Your task to perform on an android device: toggle translation in the chrome app Image 0: 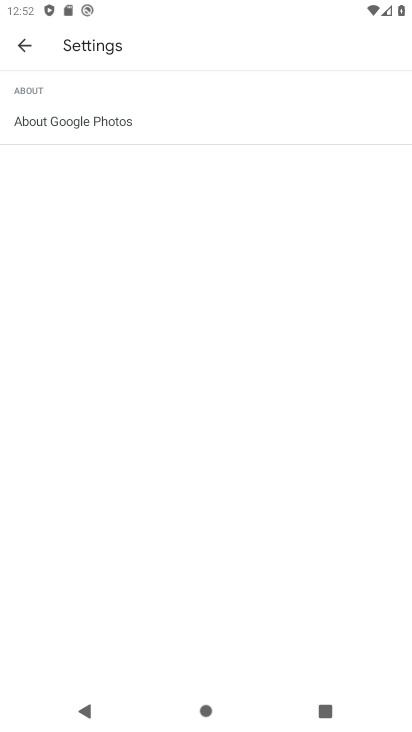
Step 0: press home button
Your task to perform on an android device: toggle translation in the chrome app Image 1: 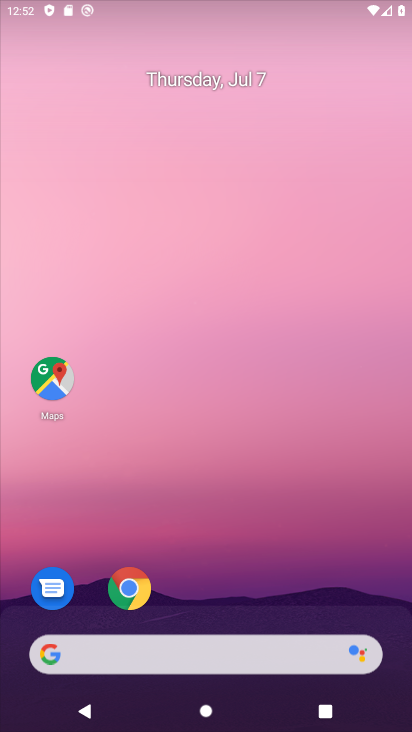
Step 1: drag from (241, 650) to (338, 47)
Your task to perform on an android device: toggle translation in the chrome app Image 2: 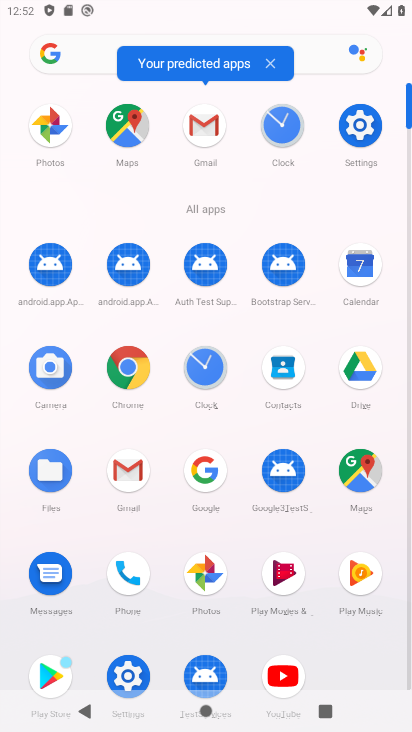
Step 2: click (128, 368)
Your task to perform on an android device: toggle translation in the chrome app Image 3: 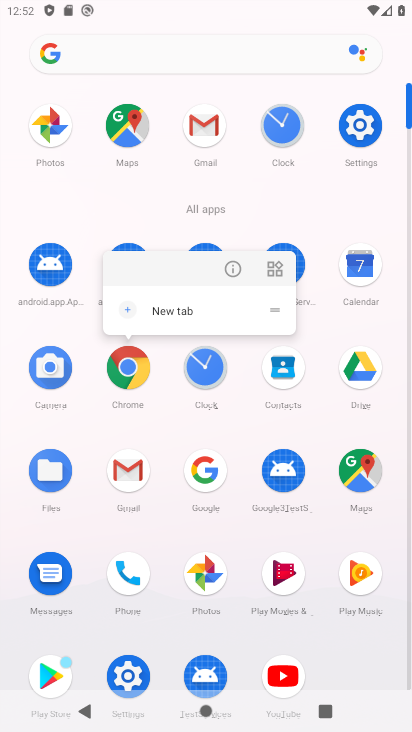
Step 3: click (128, 368)
Your task to perform on an android device: toggle translation in the chrome app Image 4: 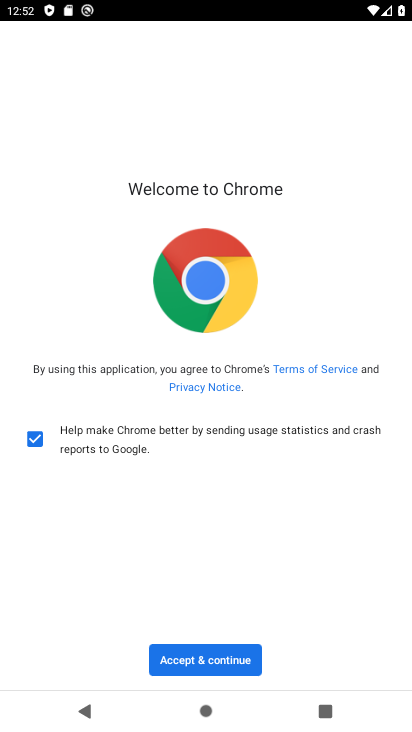
Step 4: click (218, 638)
Your task to perform on an android device: toggle translation in the chrome app Image 5: 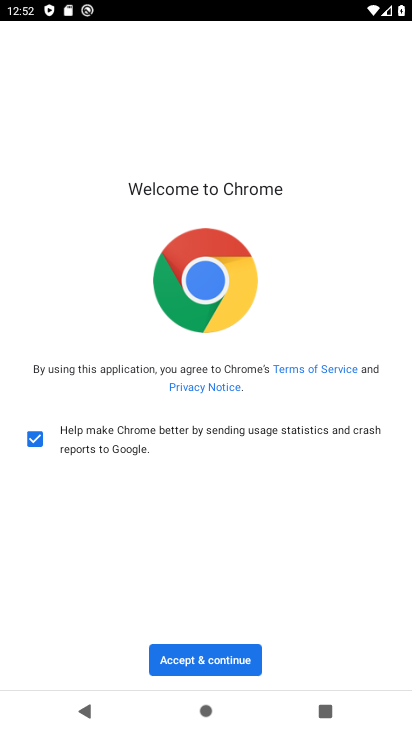
Step 5: click (237, 663)
Your task to perform on an android device: toggle translation in the chrome app Image 6: 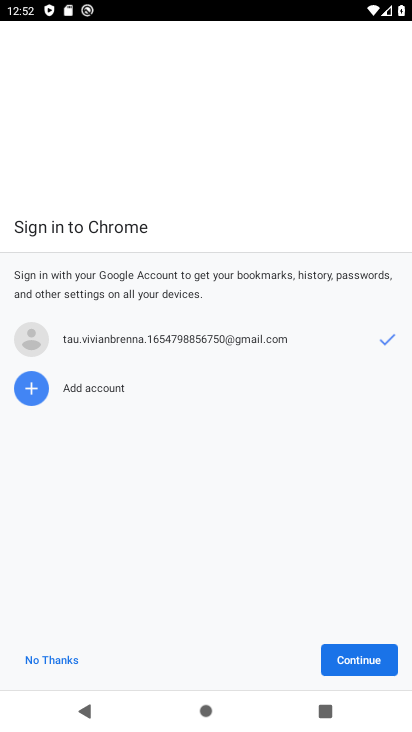
Step 6: click (341, 652)
Your task to perform on an android device: toggle translation in the chrome app Image 7: 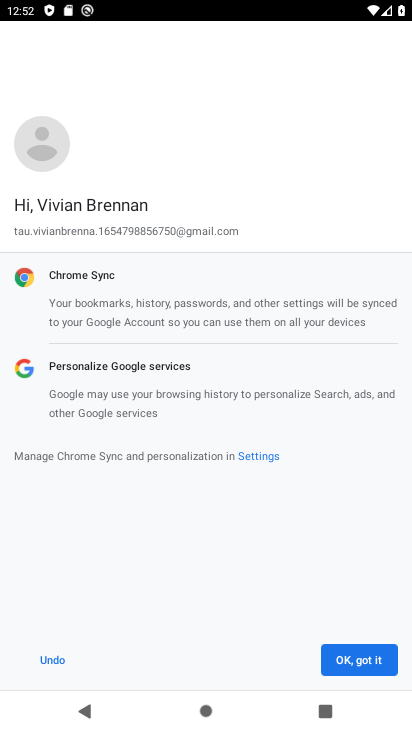
Step 7: click (341, 644)
Your task to perform on an android device: toggle translation in the chrome app Image 8: 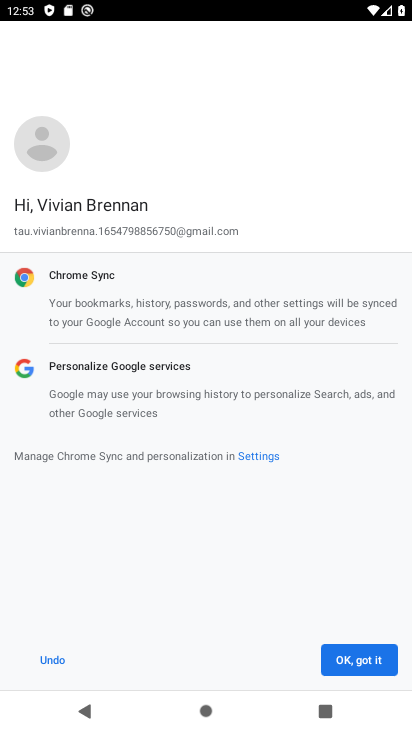
Step 8: click (375, 652)
Your task to perform on an android device: toggle translation in the chrome app Image 9: 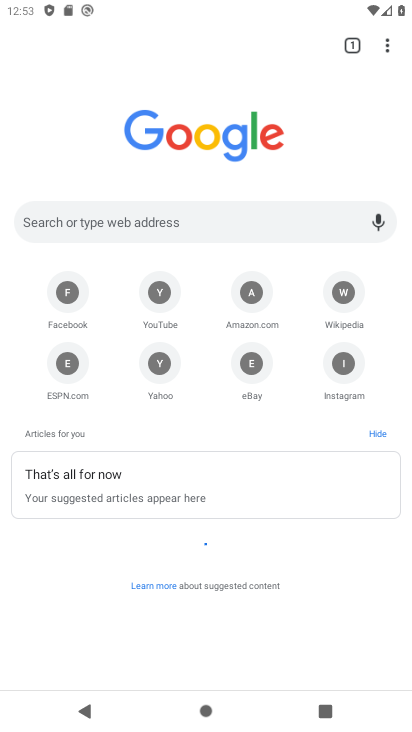
Step 9: drag from (384, 44) to (316, 378)
Your task to perform on an android device: toggle translation in the chrome app Image 10: 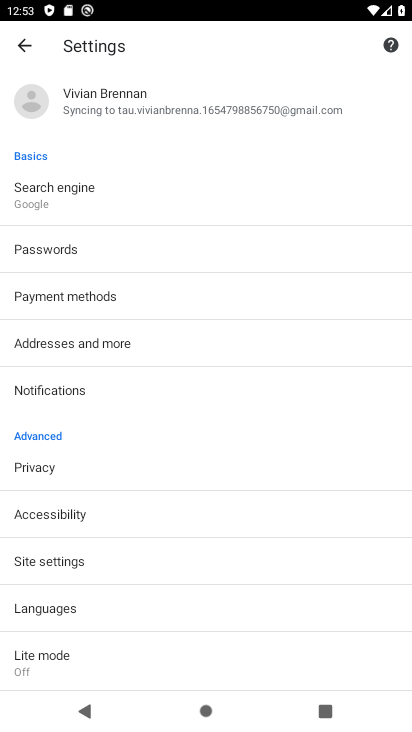
Step 10: click (73, 616)
Your task to perform on an android device: toggle translation in the chrome app Image 11: 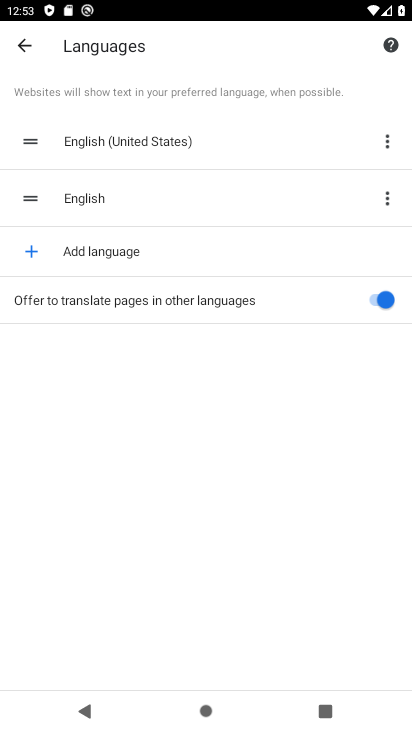
Step 11: click (374, 295)
Your task to perform on an android device: toggle translation in the chrome app Image 12: 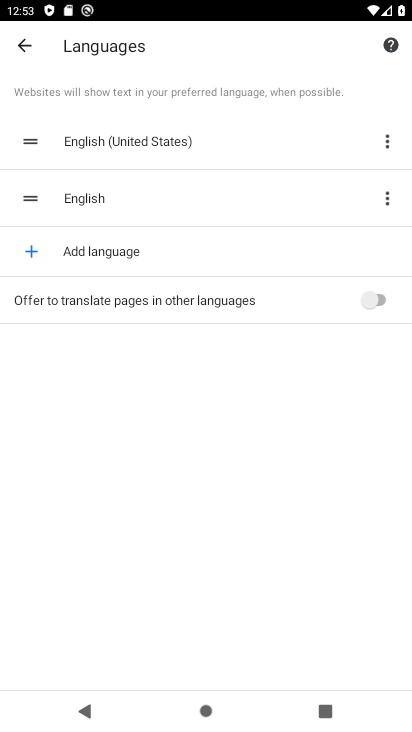
Step 12: task complete